Your task to perform on an android device: Open wifi settings Image 0: 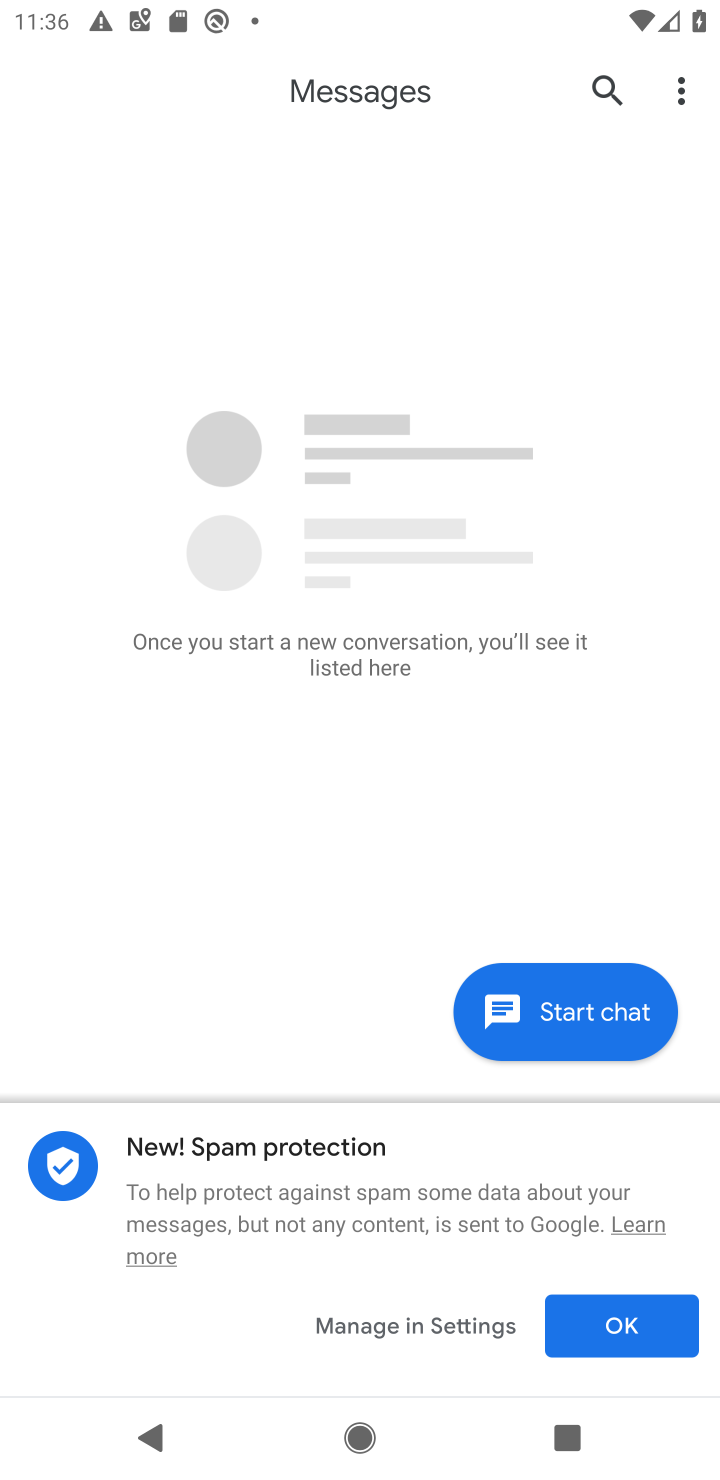
Step 0: press home button
Your task to perform on an android device: Open wifi settings Image 1: 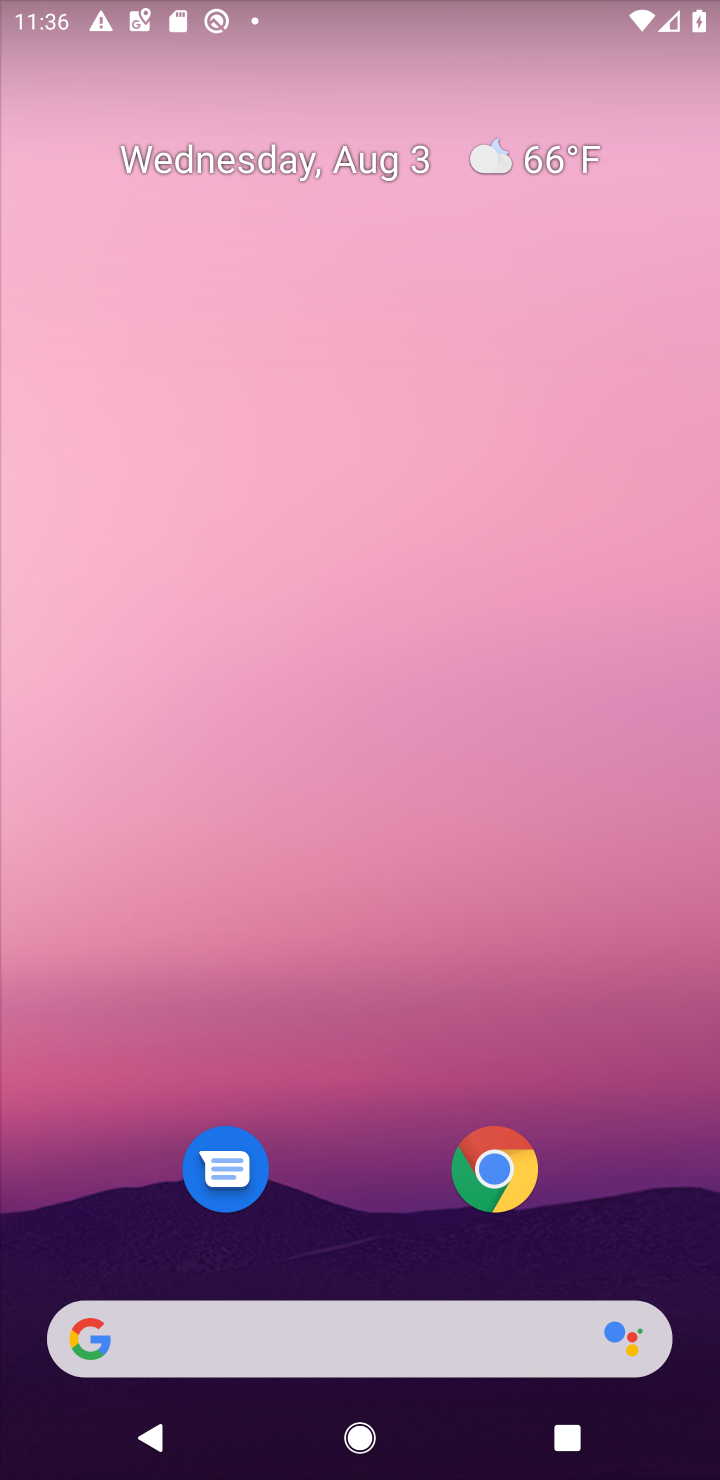
Step 1: drag from (357, 1106) to (319, 75)
Your task to perform on an android device: Open wifi settings Image 2: 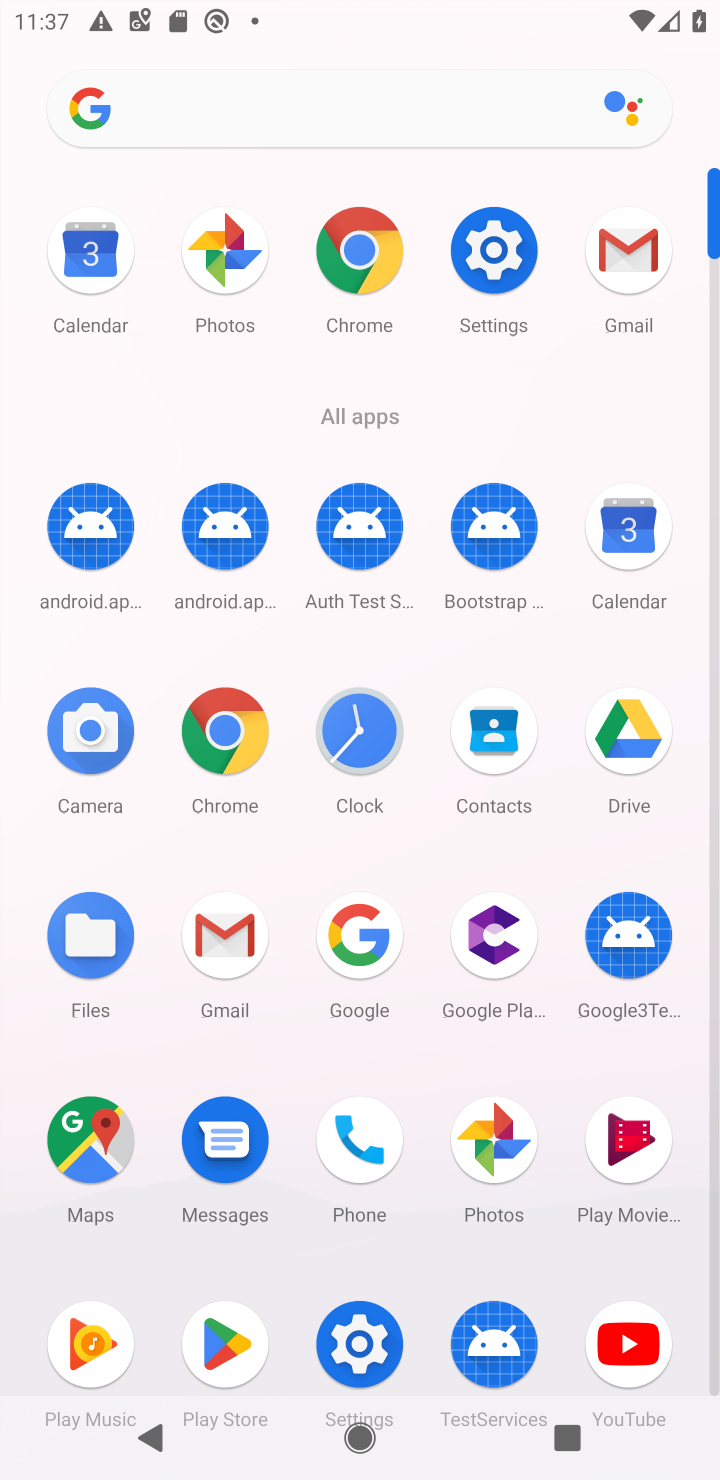
Step 2: click (491, 272)
Your task to perform on an android device: Open wifi settings Image 3: 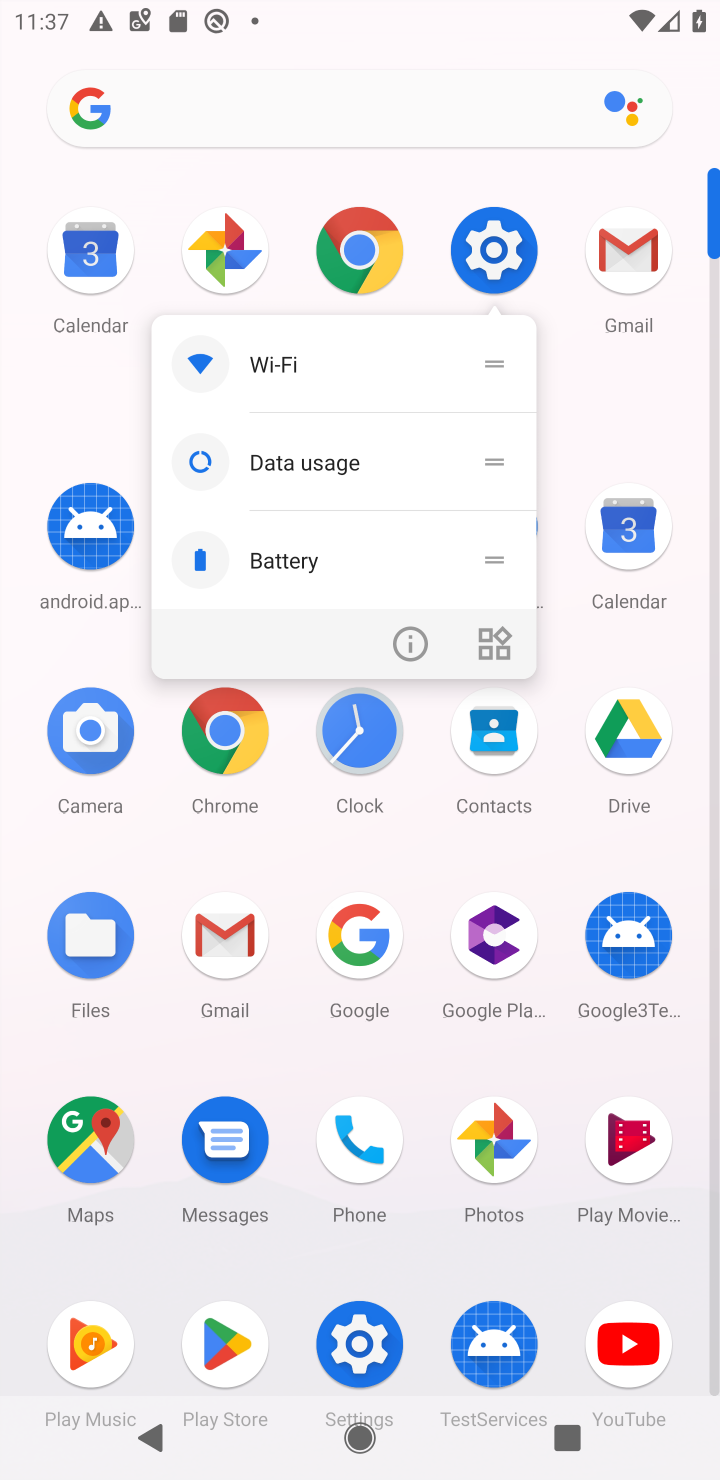
Step 3: click (491, 254)
Your task to perform on an android device: Open wifi settings Image 4: 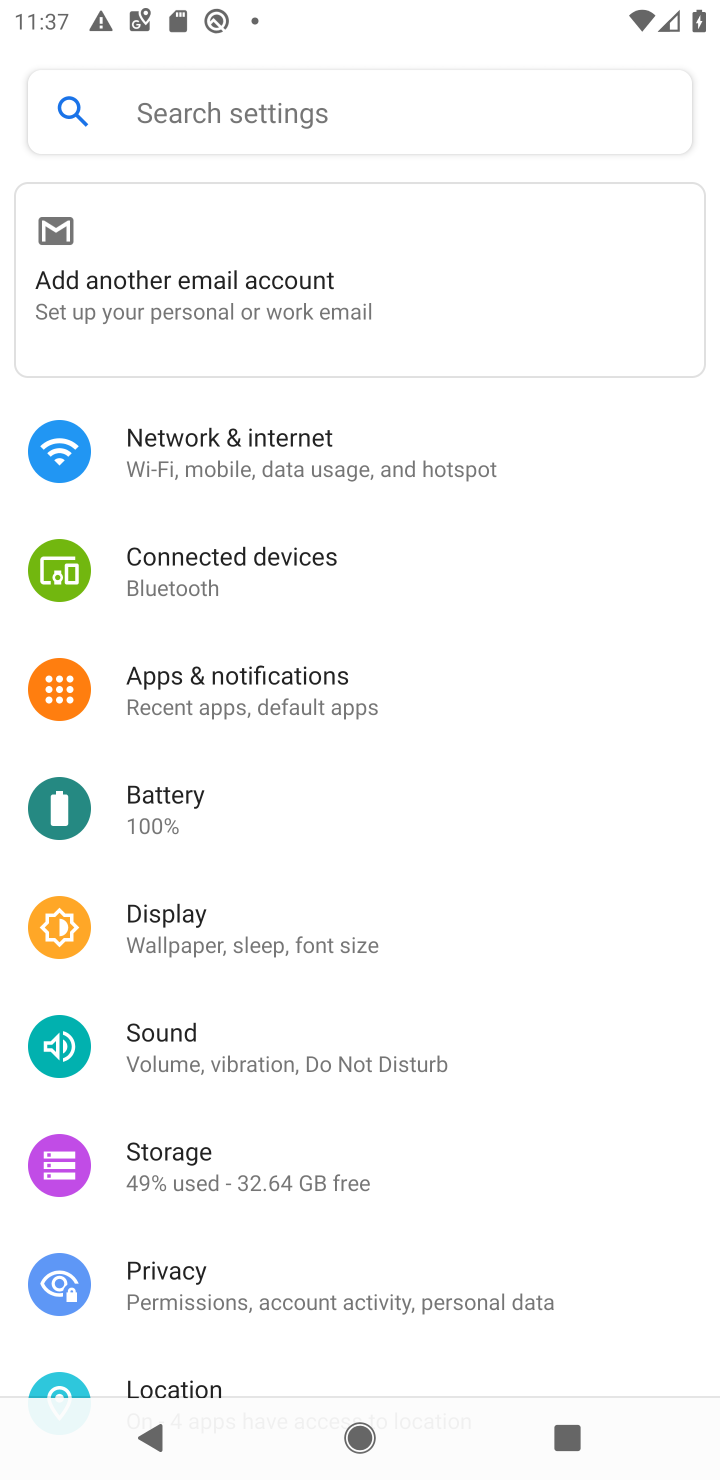
Step 4: click (245, 460)
Your task to perform on an android device: Open wifi settings Image 5: 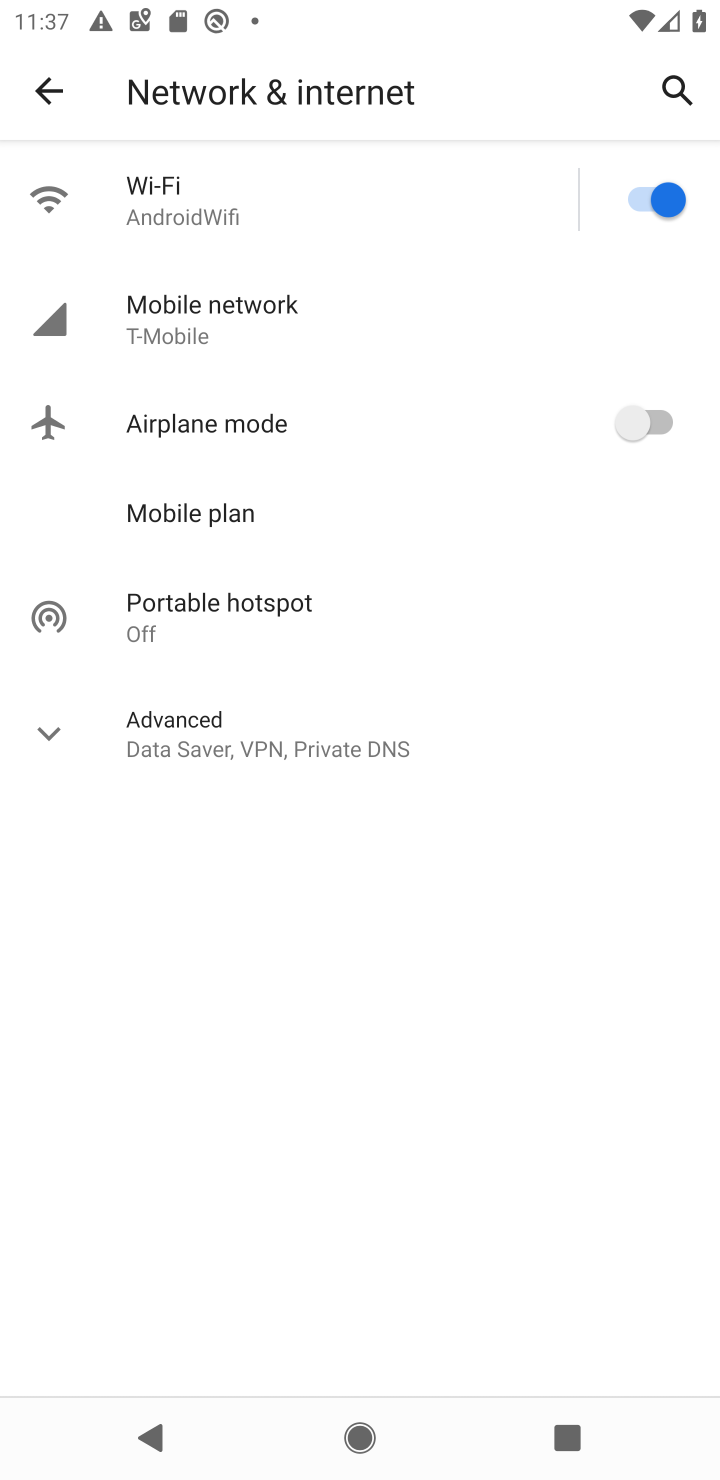
Step 5: click (109, 191)
Your task to perform on an android device: Open wifi settings Image 6: 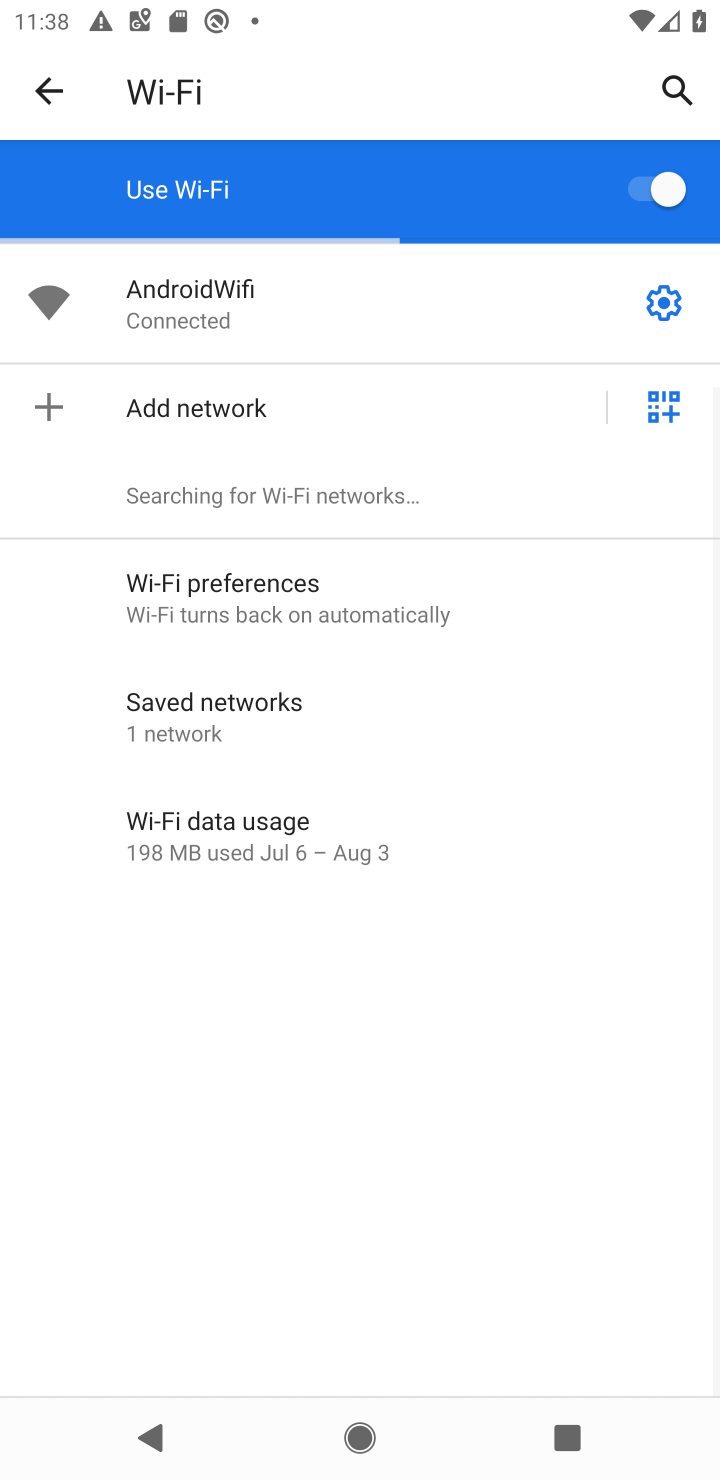
Step 6: task complete